Your task to perform on an android device: Open the stopwatch Image 0: 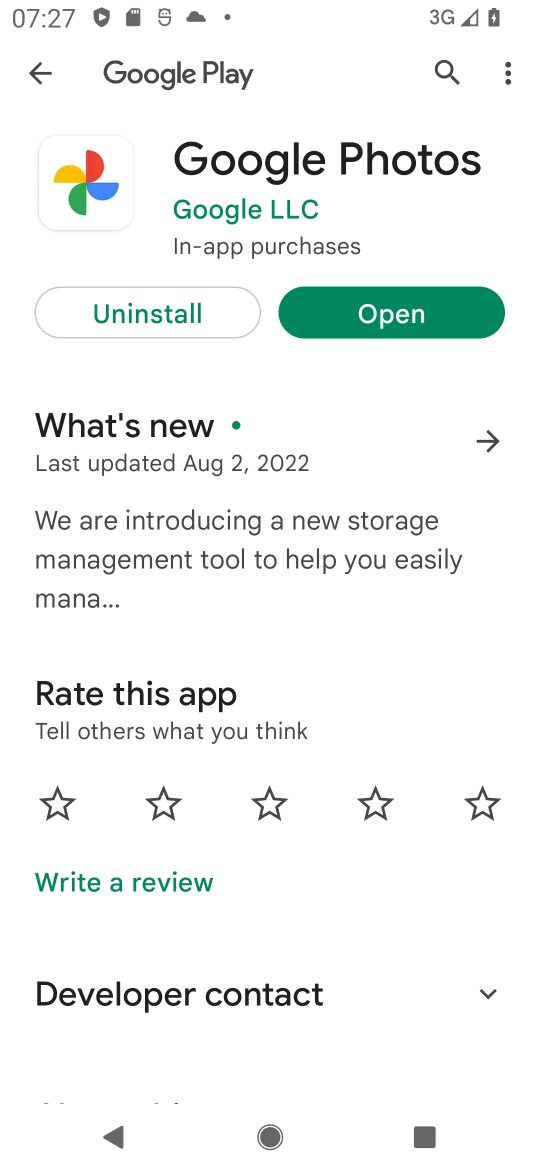
Step 0: press home button
Your task to perform on an android device: Open the stopwatch Image 1: 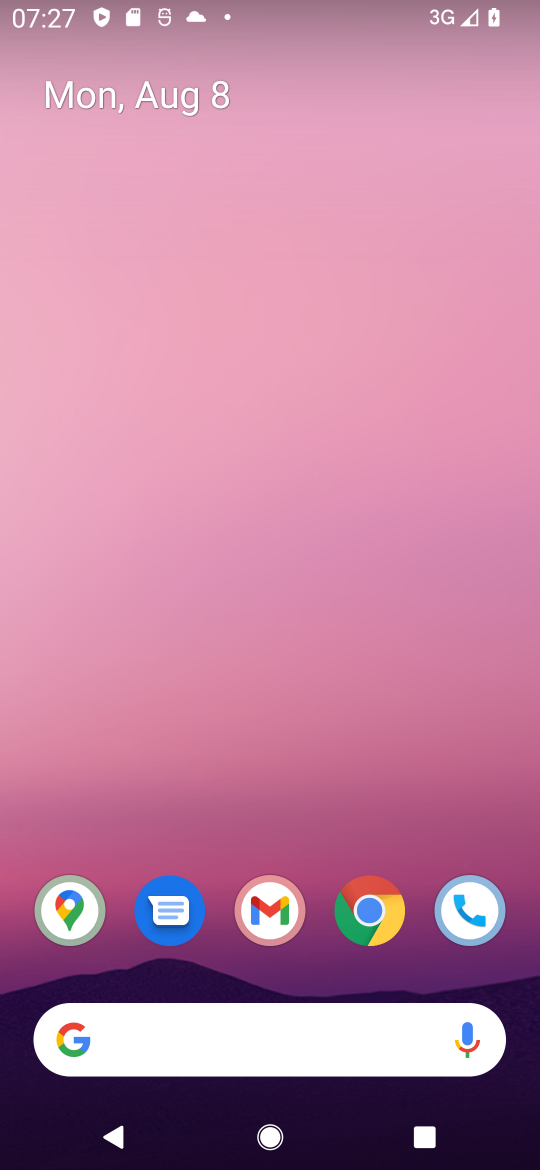
Step 1: drag from (255, 1064) to (263, 217)
Your task to perform on an android device: Open the stopwatch Image 2: 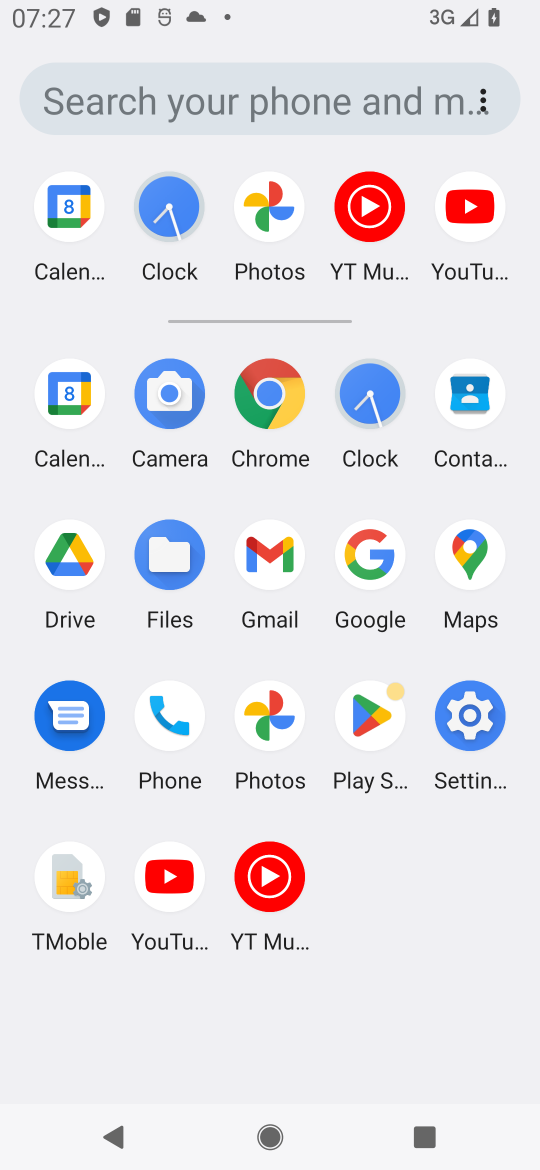
Step 2: click (371, 396)
Your task to perform on an android device: Open the stopwatch Image 3: 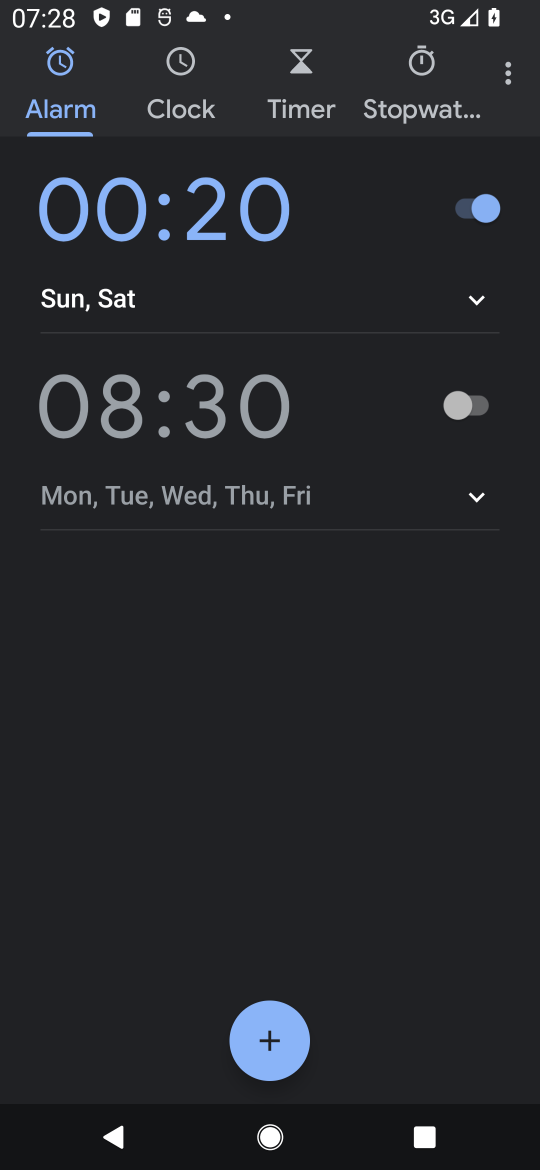
Step 3: click (423, 59)
Your task to perform on an android device: Open the stopwatch Image 4: 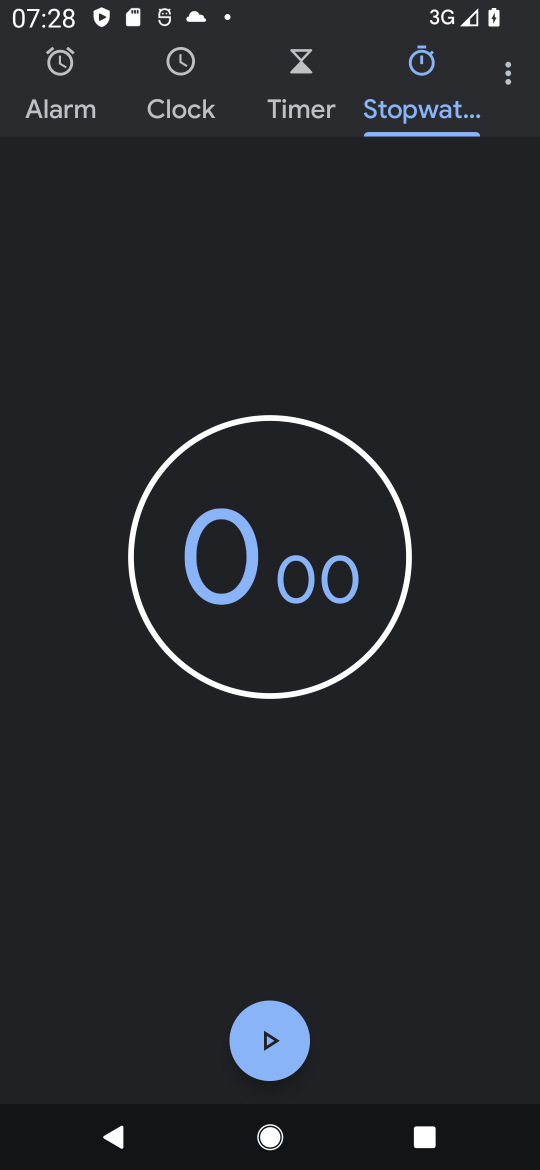
Step 4: task complete